Your task to perform on an android device: Open Amazon Image 0: 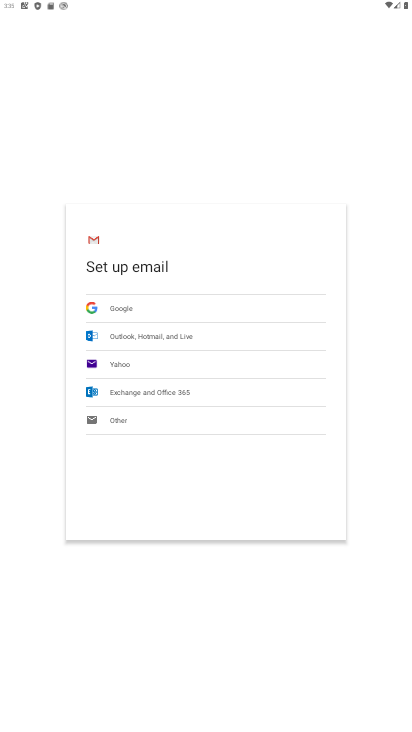
Step 0: press home button
Your task to perform on an android device: Open Amazon Image 1: 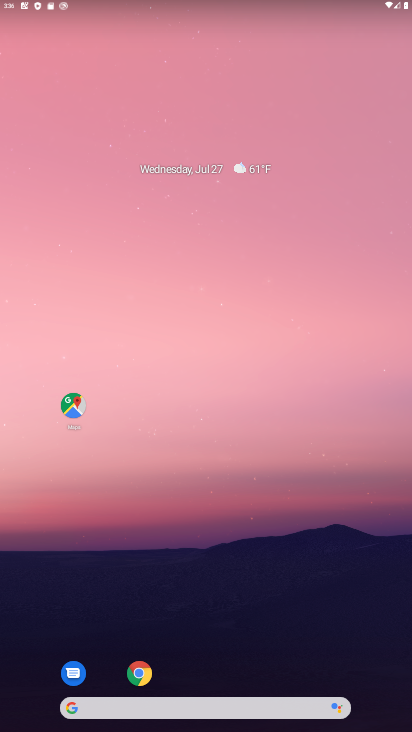
Step 1: click (135, 667)
Your task to perform on an android device: Open Amazon Image 2: 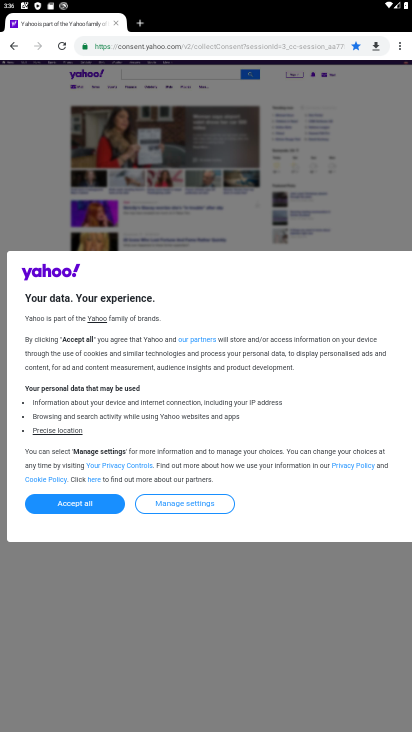
Step 2: click (94, 507)
Your task to perform on an android device: Open Amazon Image 3: 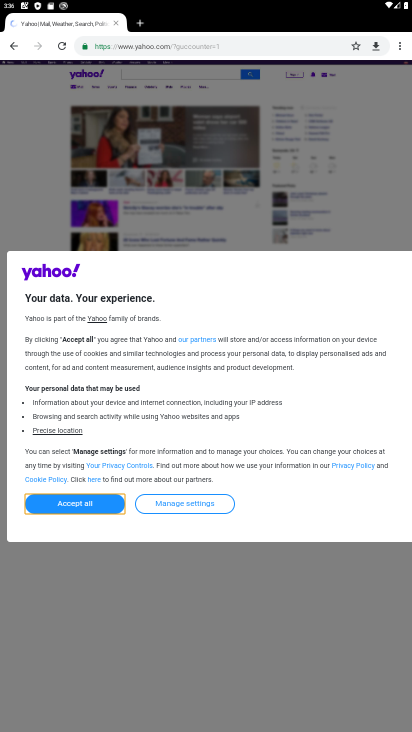
Step 3: click (102, 501)
Your task to perform on an android device: Open Amazon Image 4: 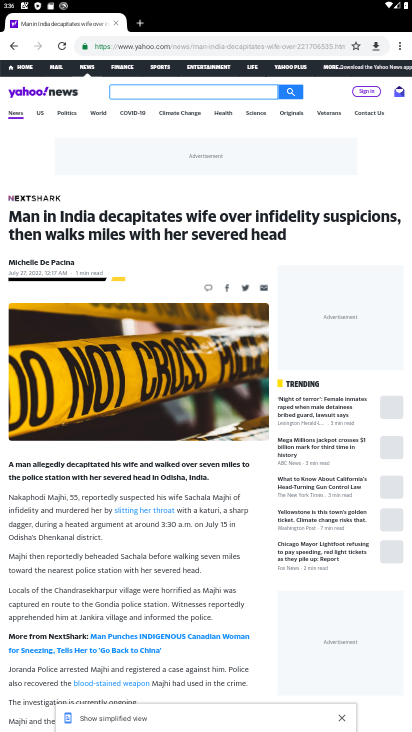
Step 4: click (142, 26)
Your task to perform on an android device: Open Amazon Image 5: 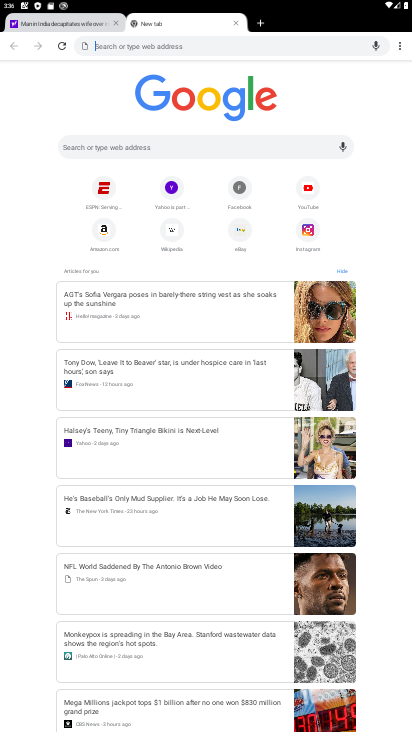
Step 5: click (106, 232)
Your task to perform on an android device: Open Amazon Image 6: 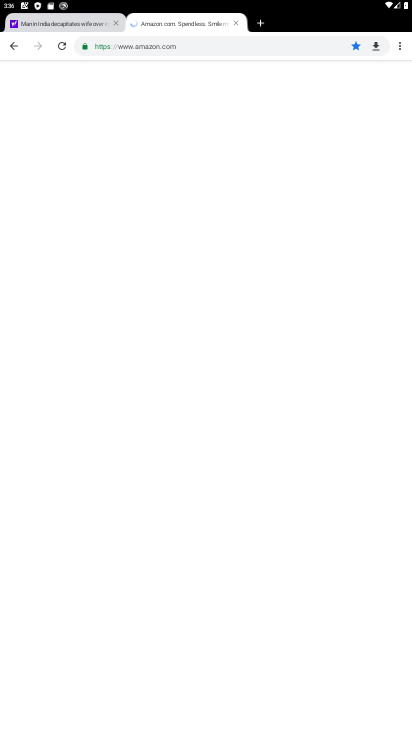
Step 6: click (115, 27)
Your task to perform on an android device: Open Amazon Image 7: 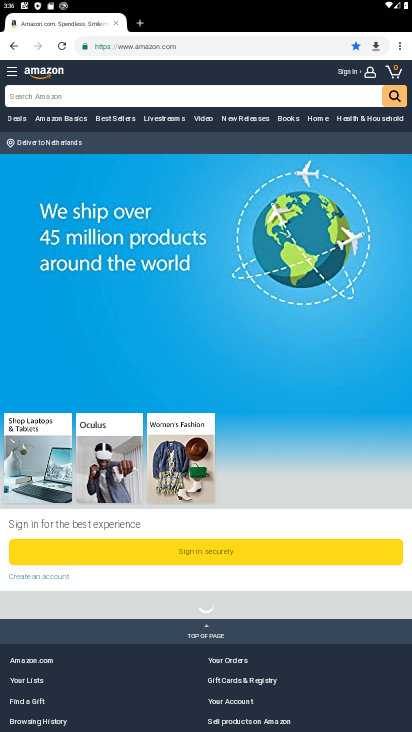
Step 7: task complete